Your task to perform on an android device: toggle data saver in the chrome app Image 0: 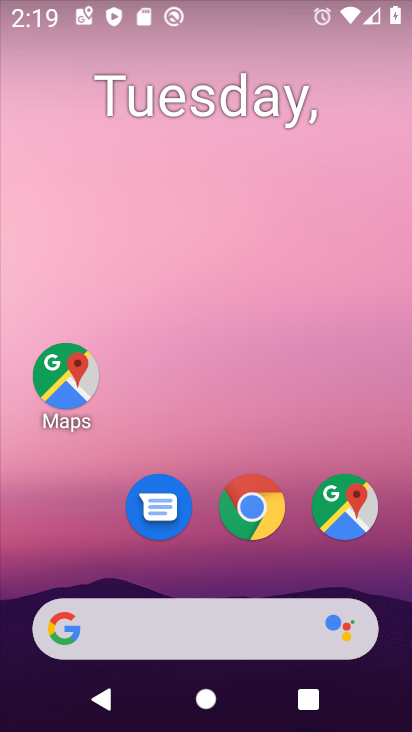
Step 0: click (244, 506)
Your task to perform on an android device: toggle data saver in the chrome app Image 1: 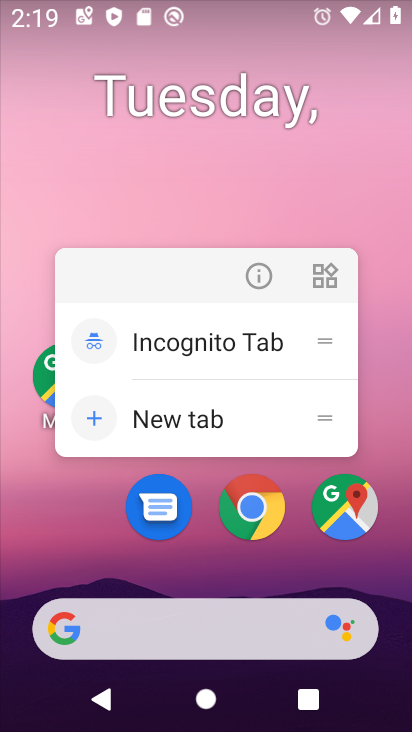
Step 1: click (243, 494)
Your task to perform on an android device: toggle data saver in the chrome app Image 2: 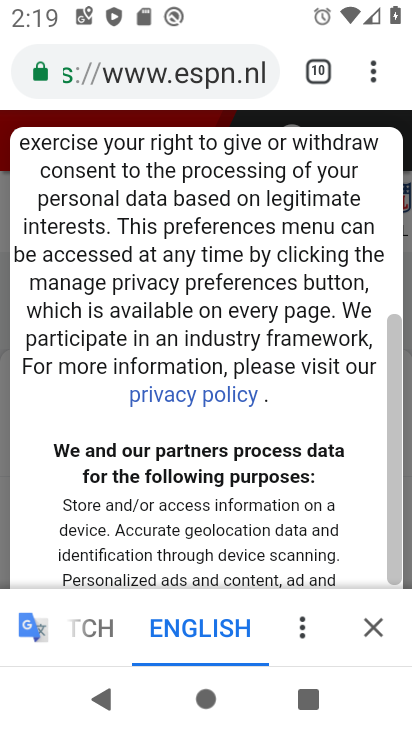
Step 2: click (379, 74)
Your task to perform on an android device: toggle data saver in the chrome app Image 3: 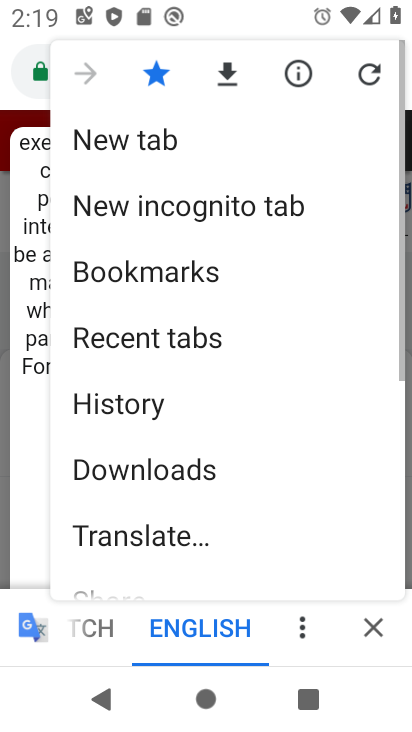
Step 3: drag from (215, 498) to (246, 179)
Your task to perform on an android device: toggle data saver in the chrome app Image 4: 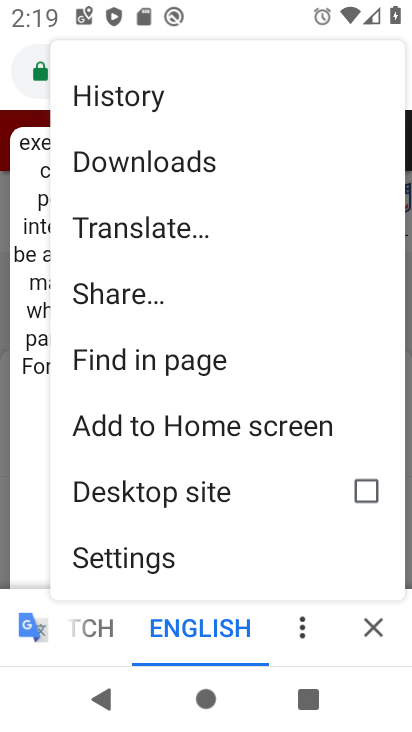
Step 4: click (156, 544)
Your task to perform on an android device: toggle data saver in the chrome app Image 5: 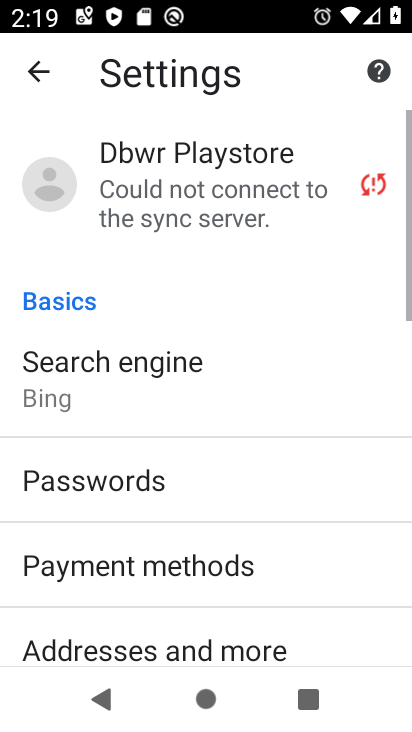
Step 5: drag from (181, 586) to (202, 245)
Your task to perform on an android device: toggle data saver in the chrome app Image 6: 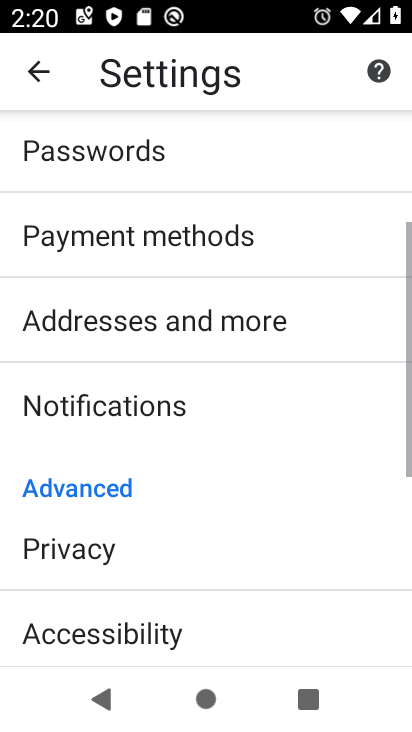
Step 6: drag from (182, 556) to (210, 290)
Your task to perform on an android device: toggle data saver in the chrome app Image 7: 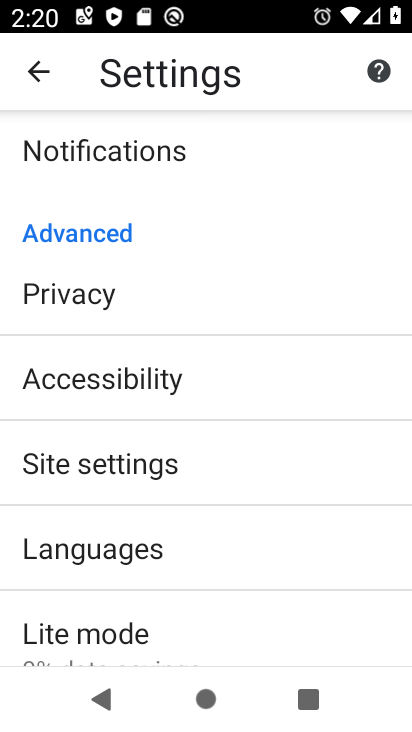
Step 7: drag from (176, 591) to (214, 408)
Your task to perform on an android device: toggle data saver in the chrome app Image 8: 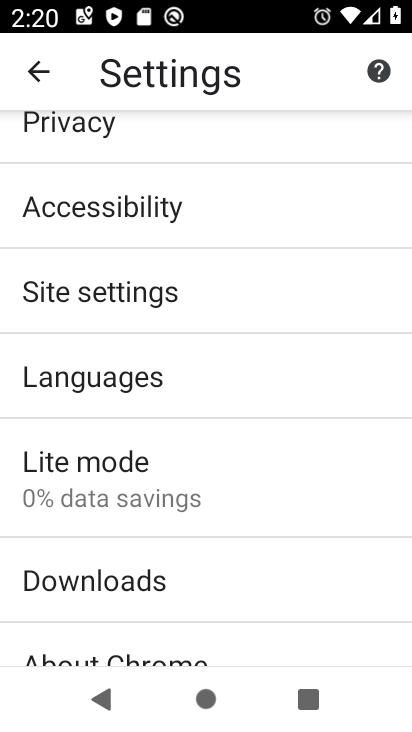
Step 8: click (158, 461)
Your task to perform on an android device: toggle data saver in the chrome app Image 9: 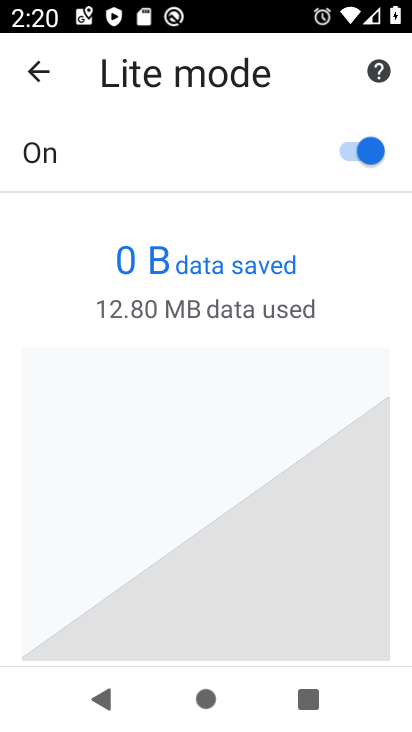
Step 9: task complete